Your task to perform on an android device: add a contact Image 0: 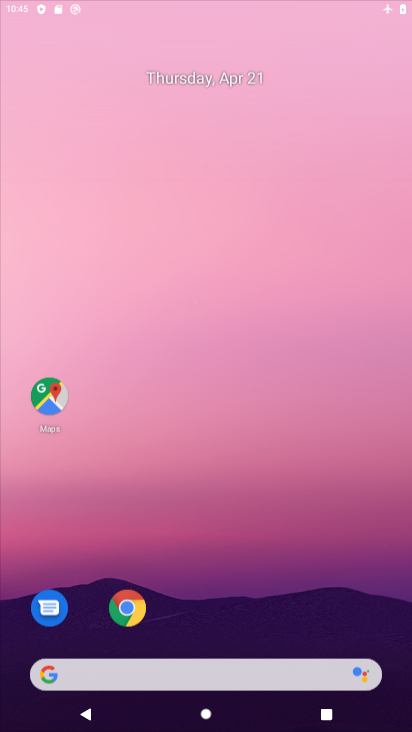
Step 0: click (223, 205)
Your task to perform on an android device: add a contact Image 1: 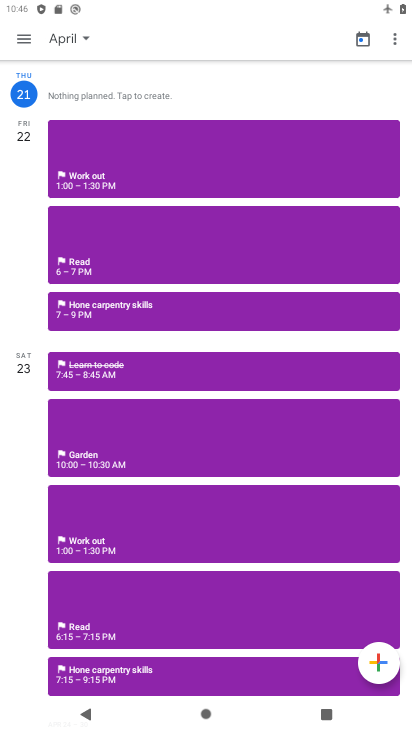
Step 1: press home button
Your task to perform on an android device: add a contact Image 2: 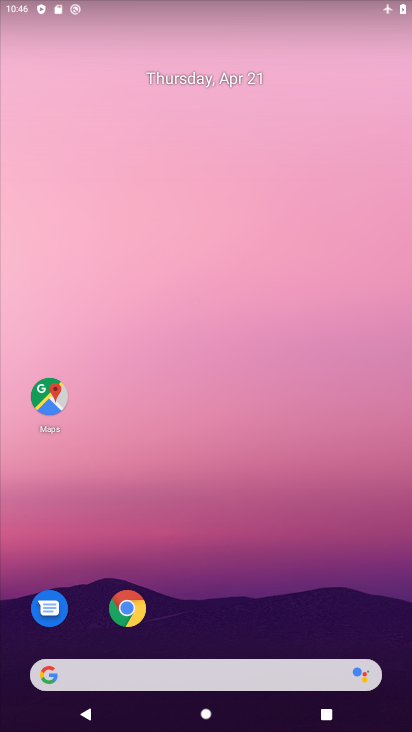
Step 2: drag from (245, 497) to (367, 172)
Your task to perform on an android device: add a contact Image 3: 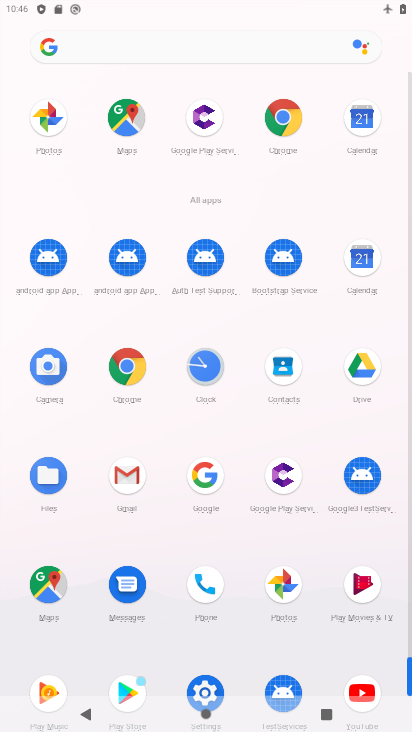
Step 3: click (290, 363)
Your task to perform on an android device: add a contact Image 4: 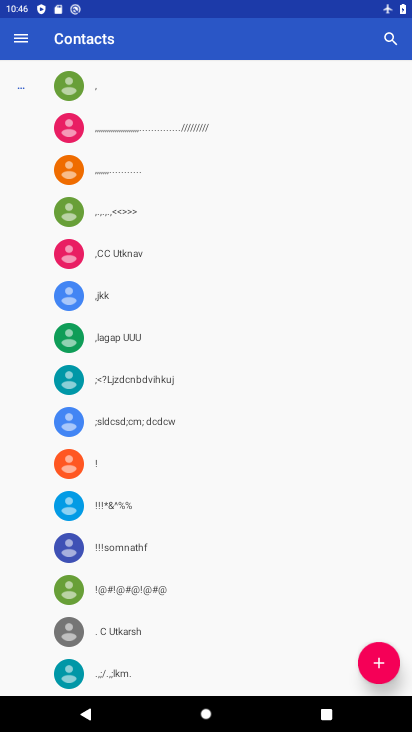
Step 4: click (383, 652)
Your task to perform on an android device: add a contact Image 5: 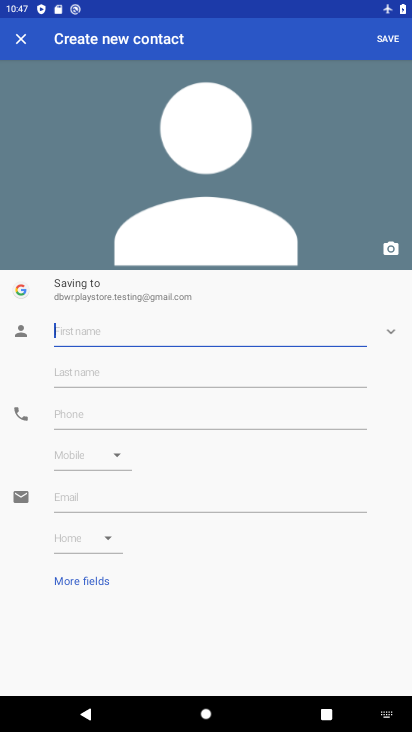
Step 5: type "fgfgggg"
Your task to perform on an android device: add a contact Image 6: 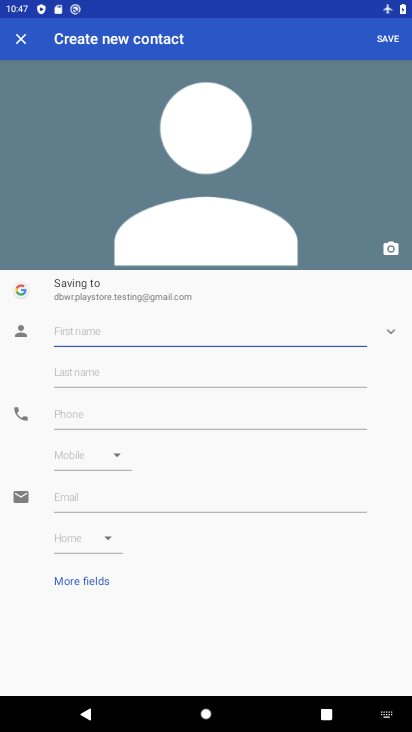
Step 6: click (98, 374)
Your task to perform on an android device: add a contact Image 7: 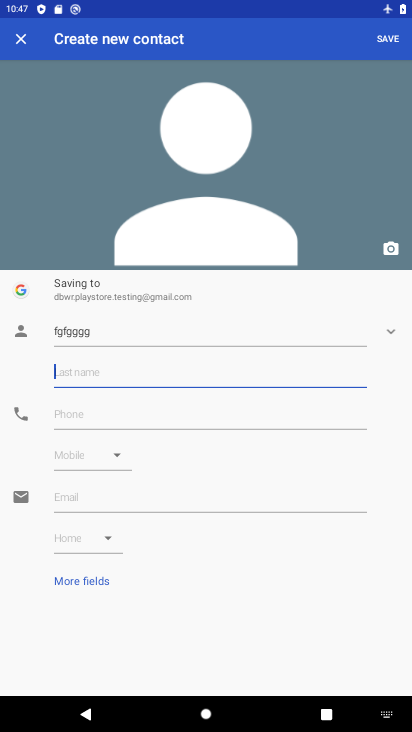
Step 7: type "hvv"
Your task to perform on an android device: add a contact Image 8: 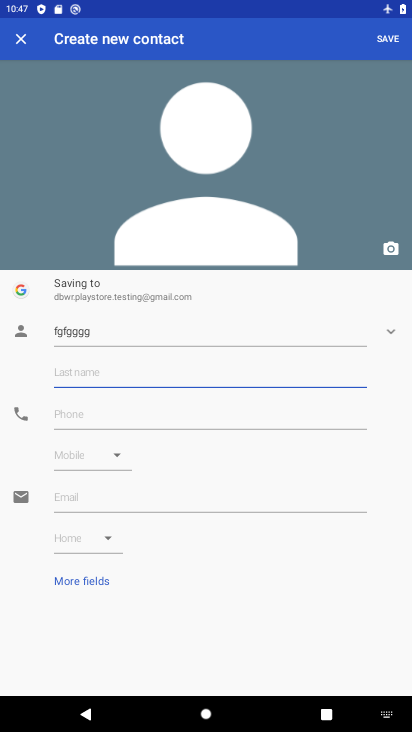
Step 8: click (221, 414)
Your task to perform on an android device: add a contact Image 9: 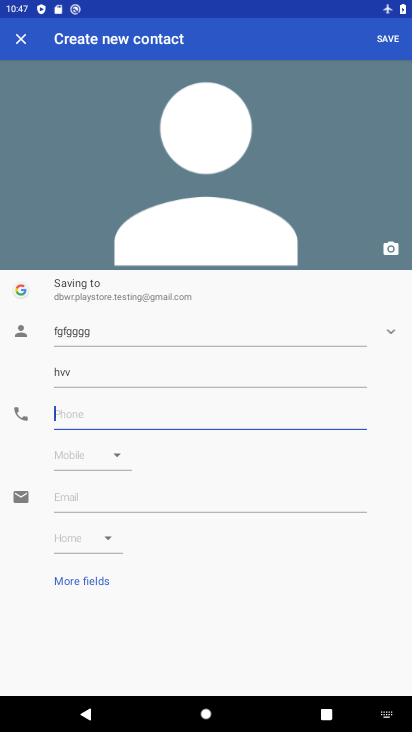
Step 9: type "56757"
Your task to perform on an android device: add a contact Image 10: 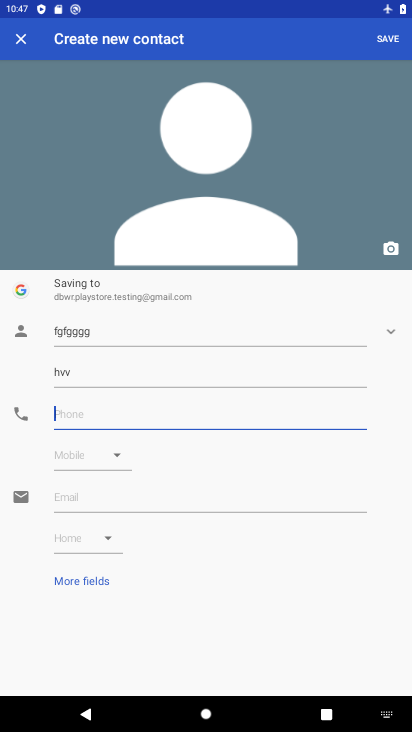
Step 10: click (385, 35)
Your task to perform on an android device: add a contact Image 11: 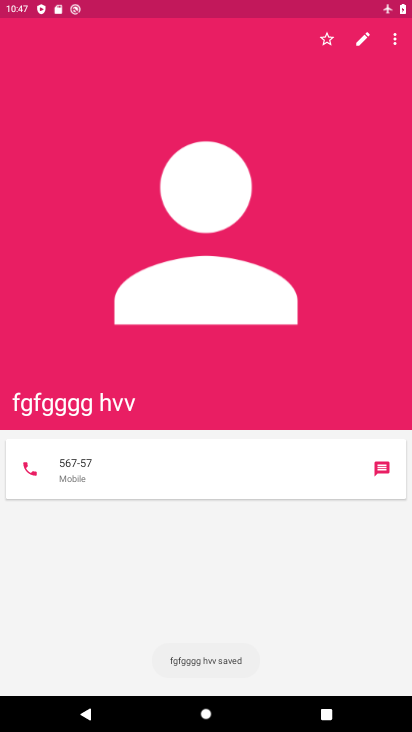
Step 11: task complete